Your task to perform on an android device: Go to location settings Image 0: 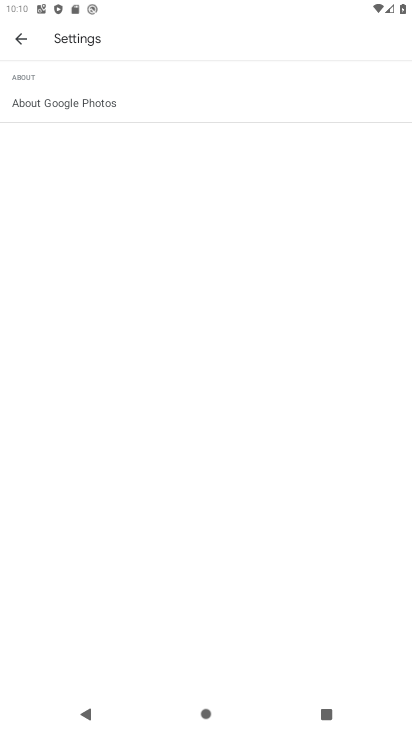
Step 0: drag from (204, 595) to (237, 129)
Your task to perform on an android device: Go to location settings Image 1: 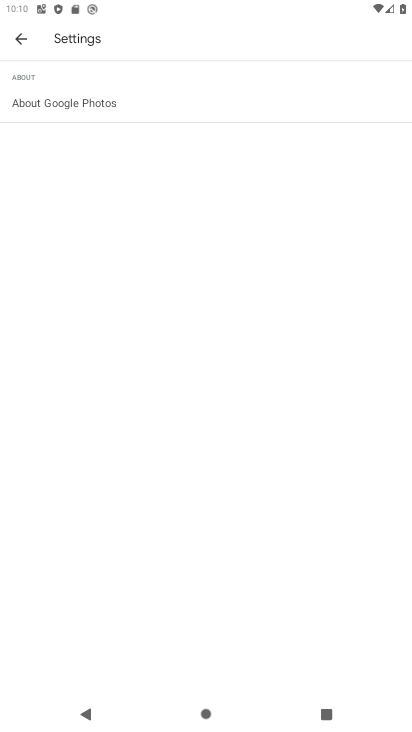
Step 1: press home button
Your task to perform on an android device: Go to location settings Image 2: 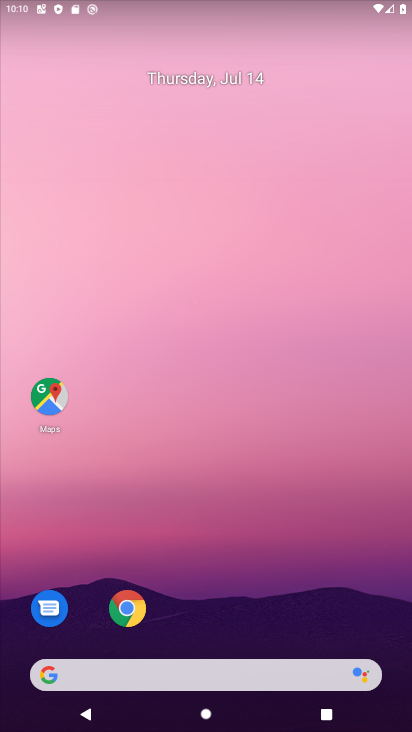
Step 2: drag from (184, 609) to (184, 69)
Your task to perform on an android device: Go to location settings Image 3: 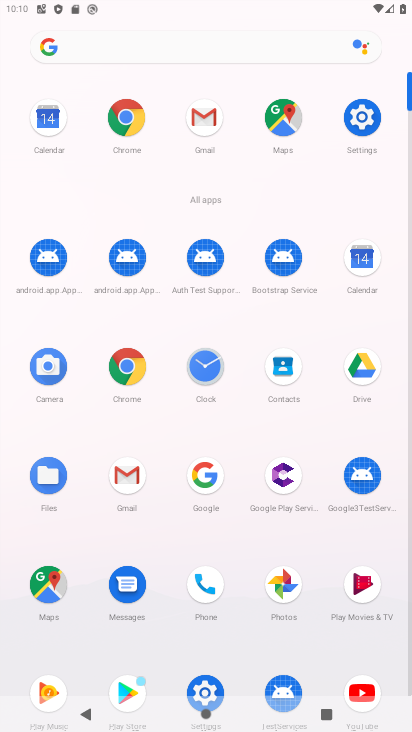
Step 3: click (371, 118)
Your task to perform on an android device: Go to location settings Image 4: 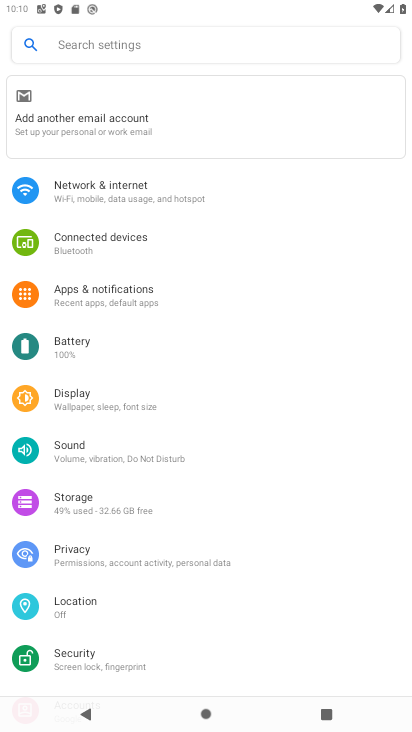
Step 4: click (49, 600)
Your task to perform on an android device: Go to location settings Image 5: 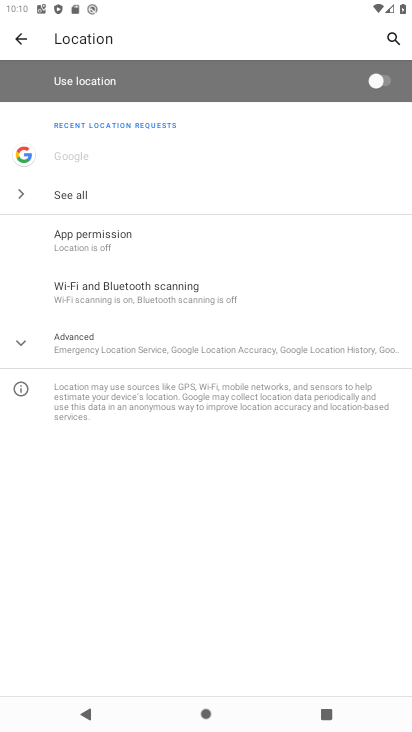
Step 5: task complete